Your task to perform on an android device: make emails show in primary in the gmail app Image 0: 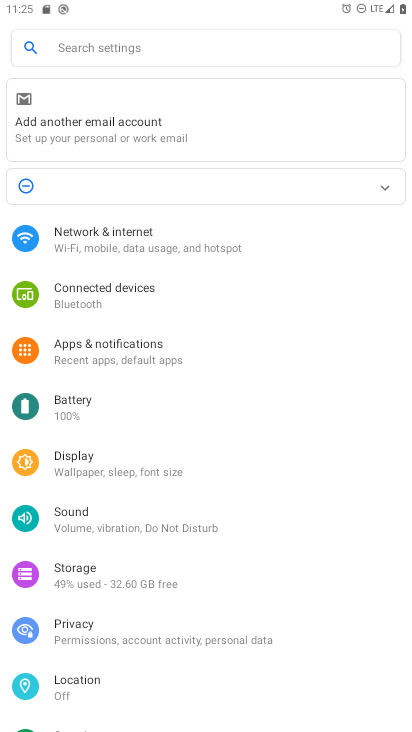
Step 0: press home button
Your task to perform on an android device: make emails show in primary in the gmail app Image 1: 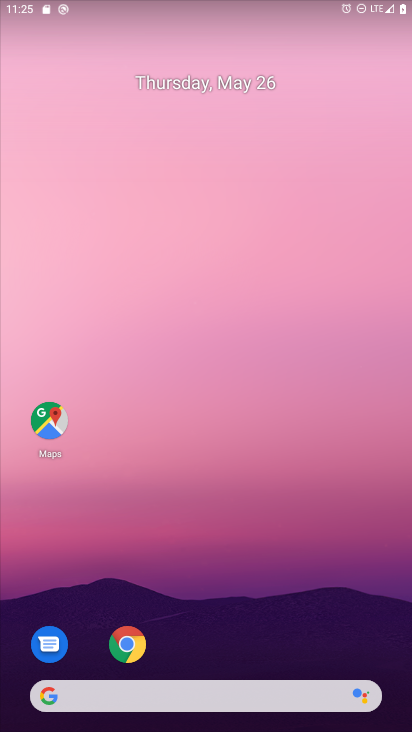
Step 1: drag from (342, 641) to (339, 198)
Your task to perform on an android device: make emails show in primary in the gmail app Image 2: 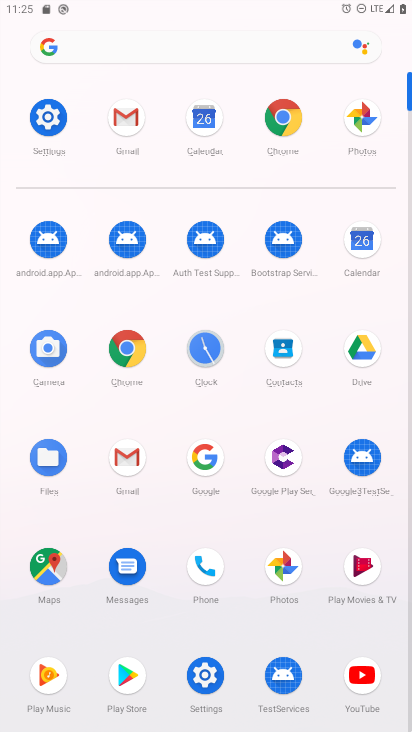
Step 2: click (130, 461)
Your task to perform on an android device: make emails show in primary in the gmail app Image 3: 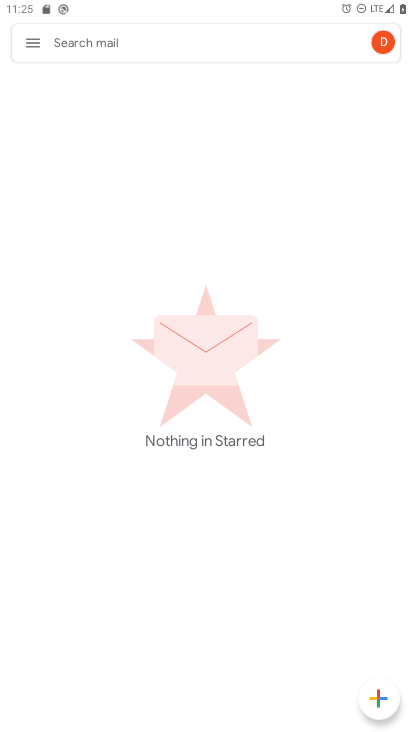
Step 3: click (32, 42)
Your task to perform on an android device: make emails show in primary in the gmail app Image 4: 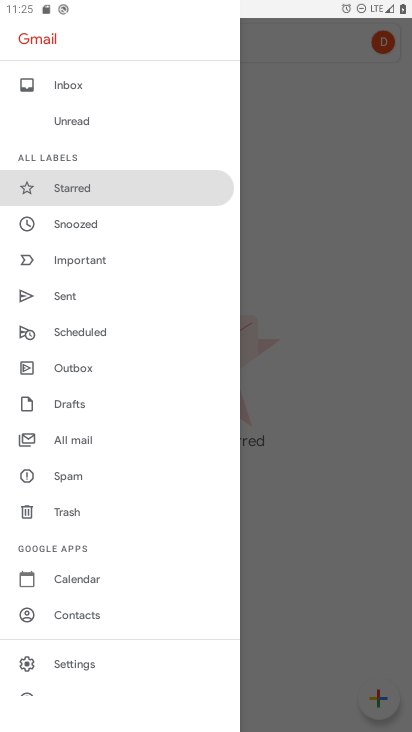
Step 4: click (94, 661)
Your task to perform on an android device: make emails show in primary in the gmail app Image 5: 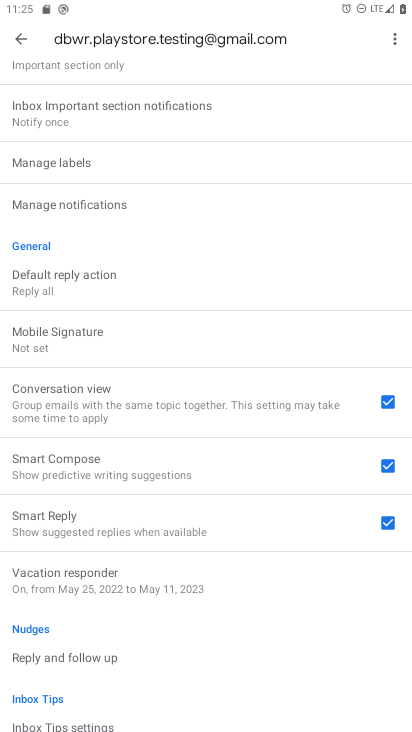
Step 5: drag from (241, 221) to (233, 359)
Your task to perform on an android device: make emails show in primary in the gmail app Image 6: 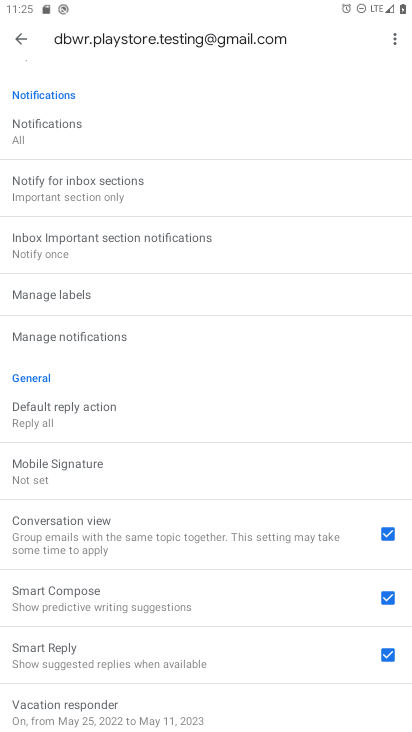
Step 6: drag from (268, 182) to (252, 381)
Your task to perform on an android device: make emails show in primary in the gmail app Image 7: 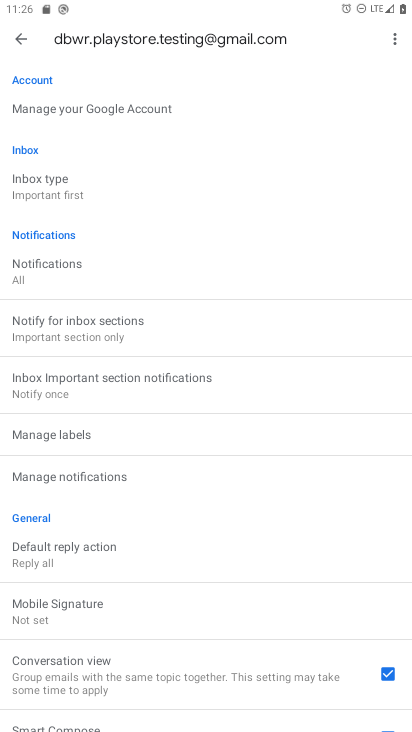
Step 7: click (42, 191)
Your task to perform on an android device: make emails show in primary in the gmail app Image 8: 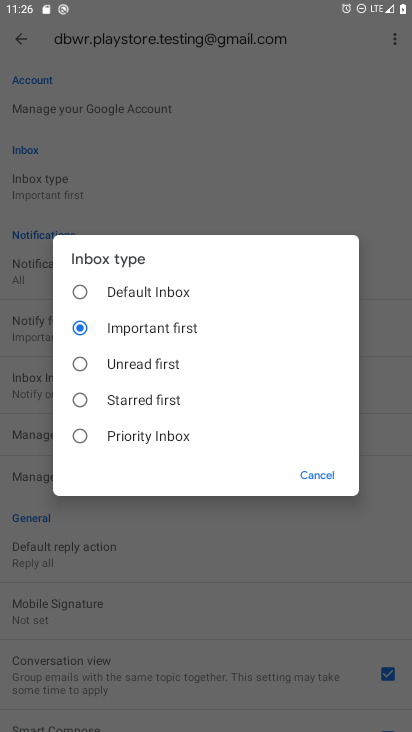
Step 8: click (86, 294)
Your task to perform on an android device: make emails show in primary in the gmail app Image 9: 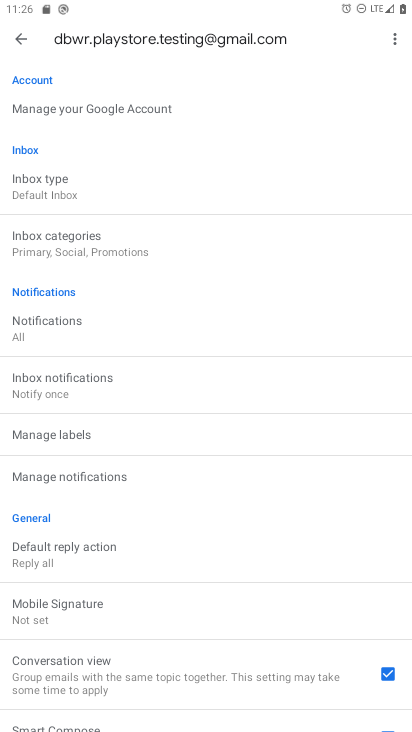
Step 9: click (62, 240)
Your task to perform on an android device: make emails show in primary in the gmail app Image 10: 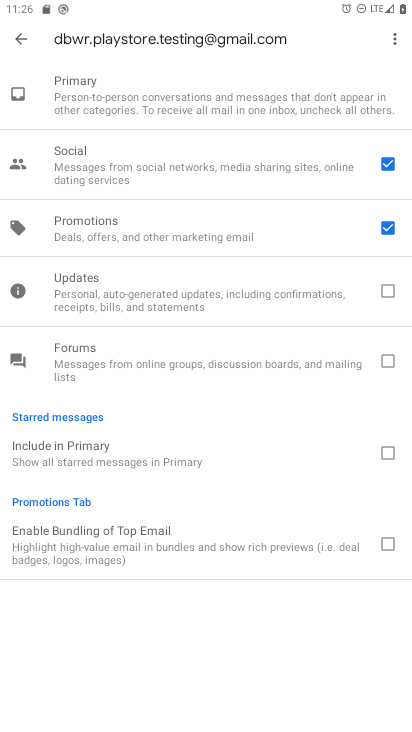
Step 10: click (385, 171)
Your task to perform on an android device: make emails show in primary in the gmail app Image 11: 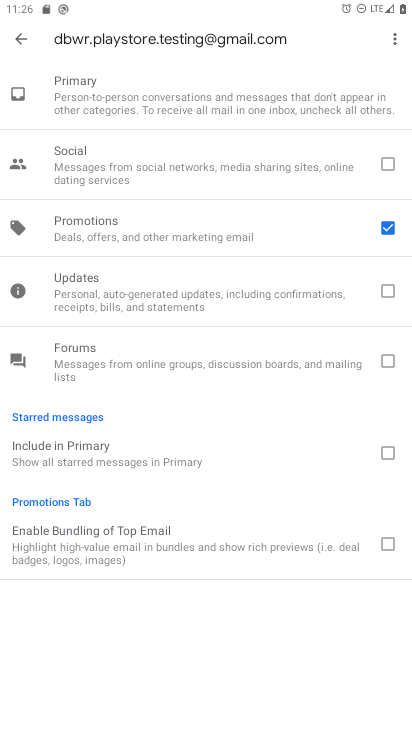
Step 11: click (387, 231)
Your task to perform on an android device: make emails show in primary in the gmail app Image 12: 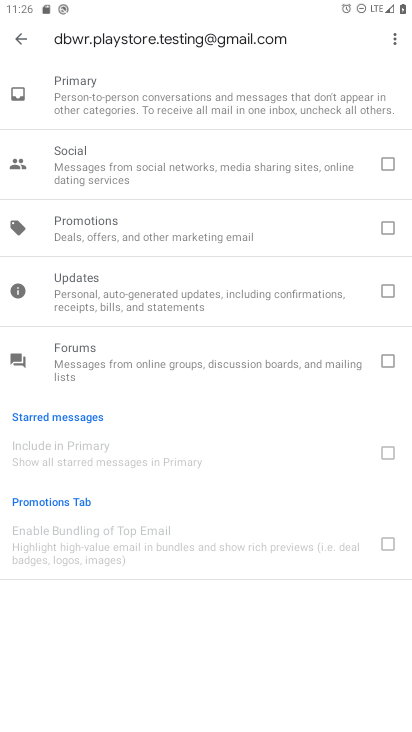
Step 12: task complete